Your task to perform on an android device: check data usage Image 0: 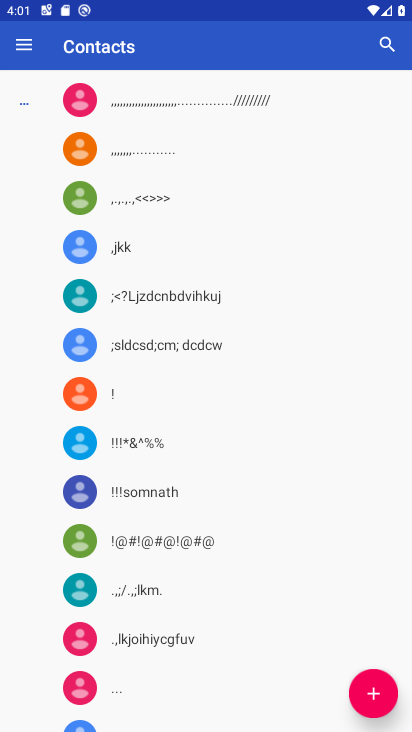
Step 0: press home button
Your task to perform on an android device: check data usage Image 1: 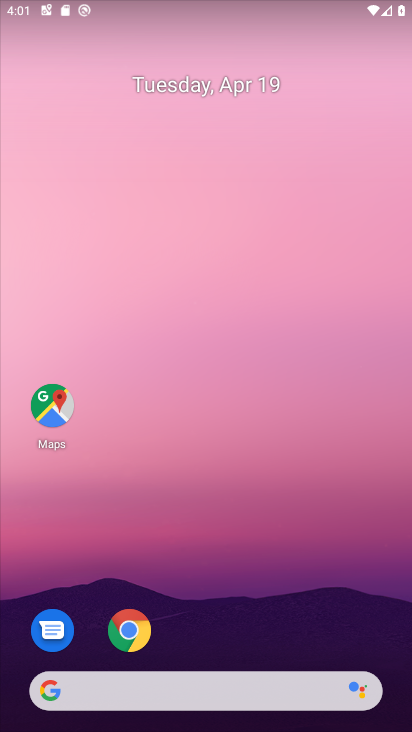
Step 1: drag from (307, 549) to (288, 189)
Your task to perform on an android device: check data usage Image 2: 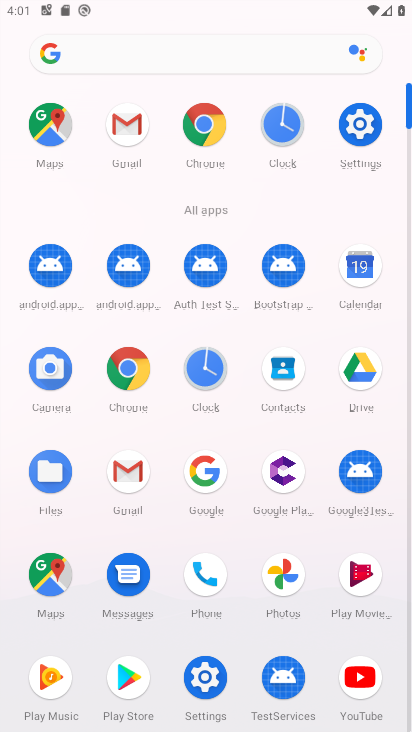
Step 2: click (361, 128)
Your task to perform on an android device: check data usage Image 3: 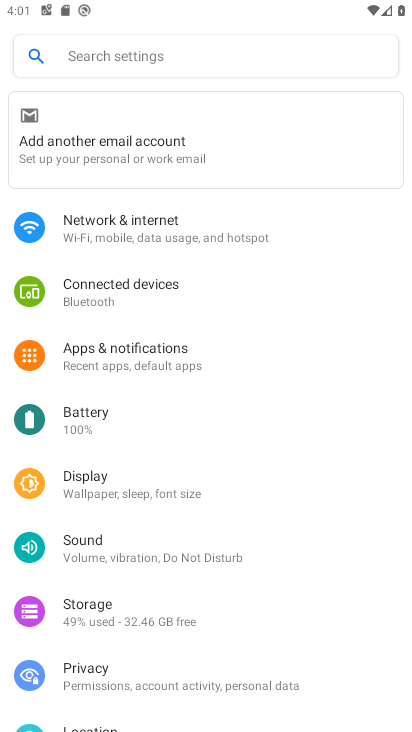
Step 3: click (187, 230)
Your task to perform on an android device: check data usage Image 4: 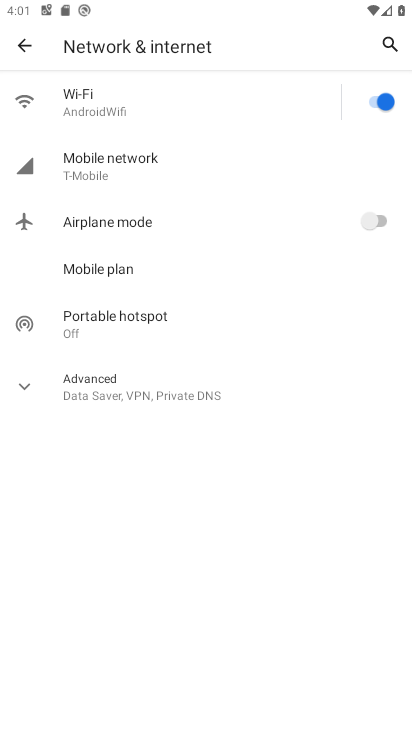
Step 4: click (184, 165)
Your task to perform on an android device: check data usage Image 5: 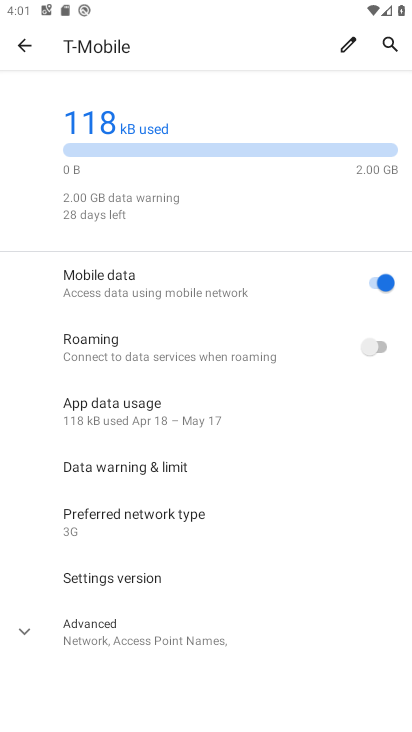
Step 5: click (122, 420)
Your task to perform on an android device: check data usage Image 6: 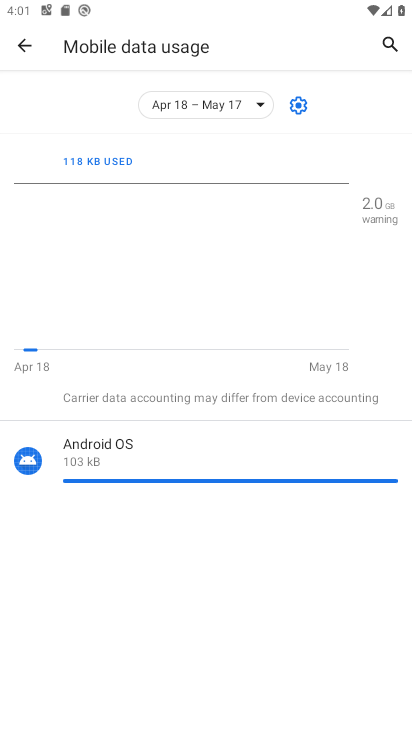
Step 6: task complete